Your task to perform on an android device: Search for "beats solo 3" on newegg.com, select the first entry, and add it to the cart. Image 0: 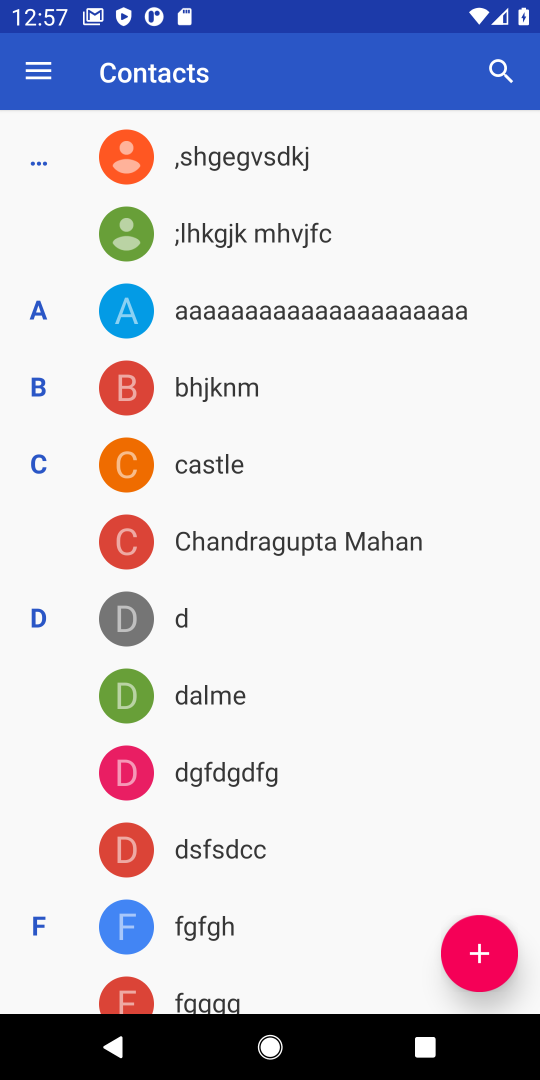
Step 0: press home button
Your task to perform on an android device: Search for "beats solo 3" on newegg.com, select the first entry, and add it to the cart. Image 1: 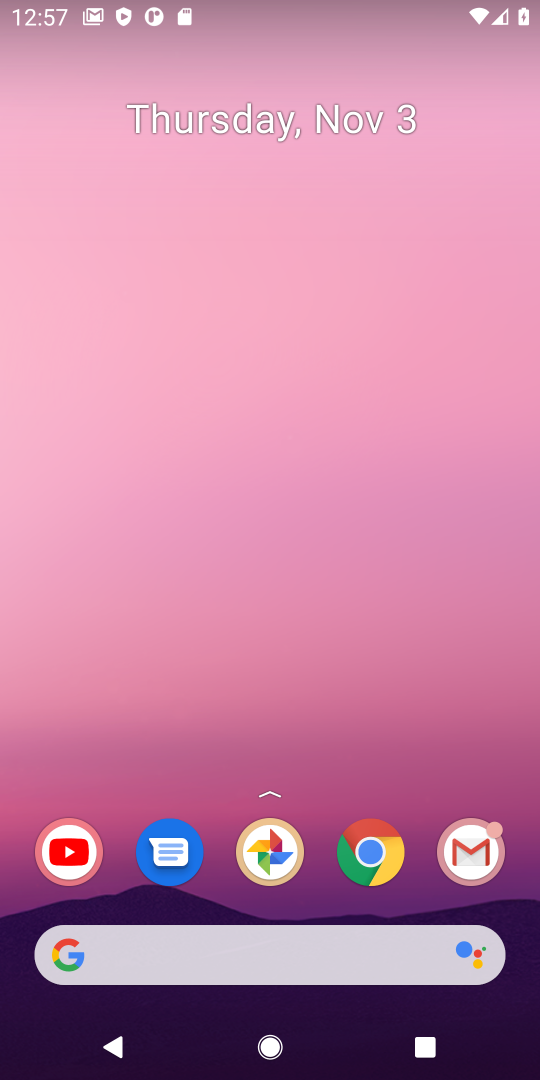
Step 1: click (370, 850)
Your task to perform on an android device: Search for "beats solo 3" on newegg.com, select the first entry, and add it to the cart. Image 2: 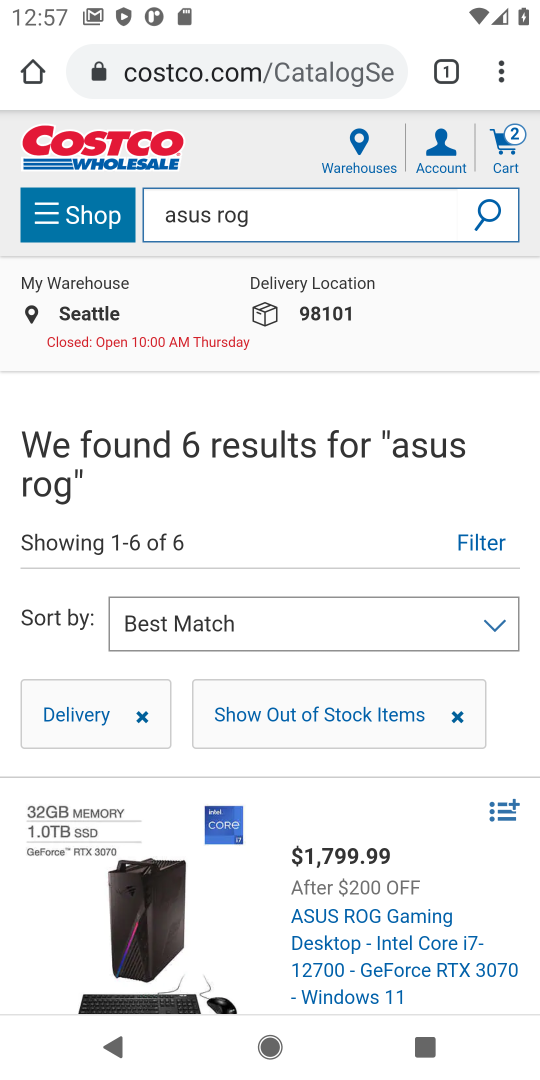
Step 2: click (202, 73)
Your task to perform on an android device: Search for "beats solo 3" on newegg.com, select the first entry, and add it to the cart. Image 3: 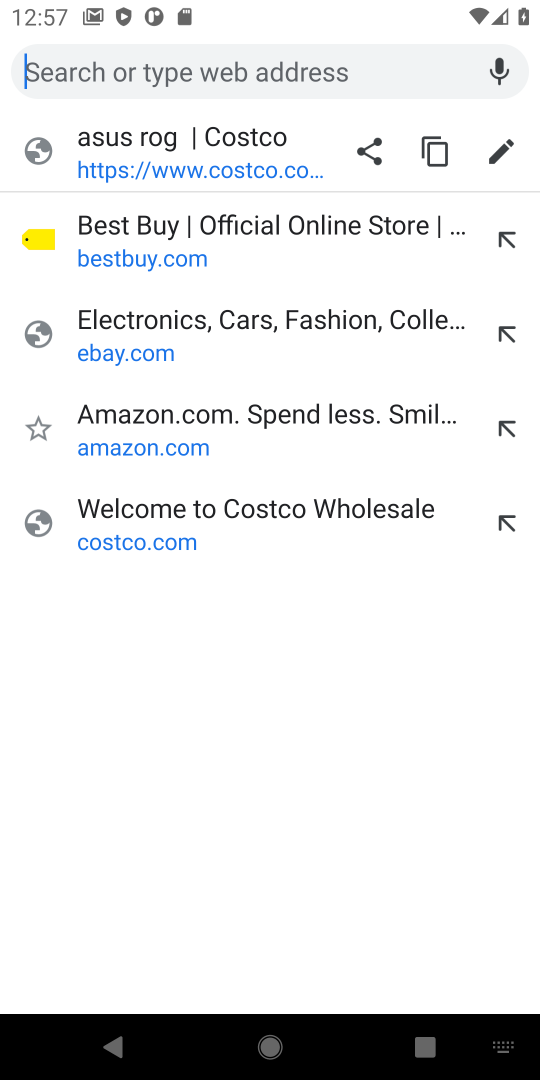
Step 3: type "newegg.com"
Your task to perform on an android device: Search for "beats solo 3" on newegg.com, select the first entry, and add it to the cart. Image 4: 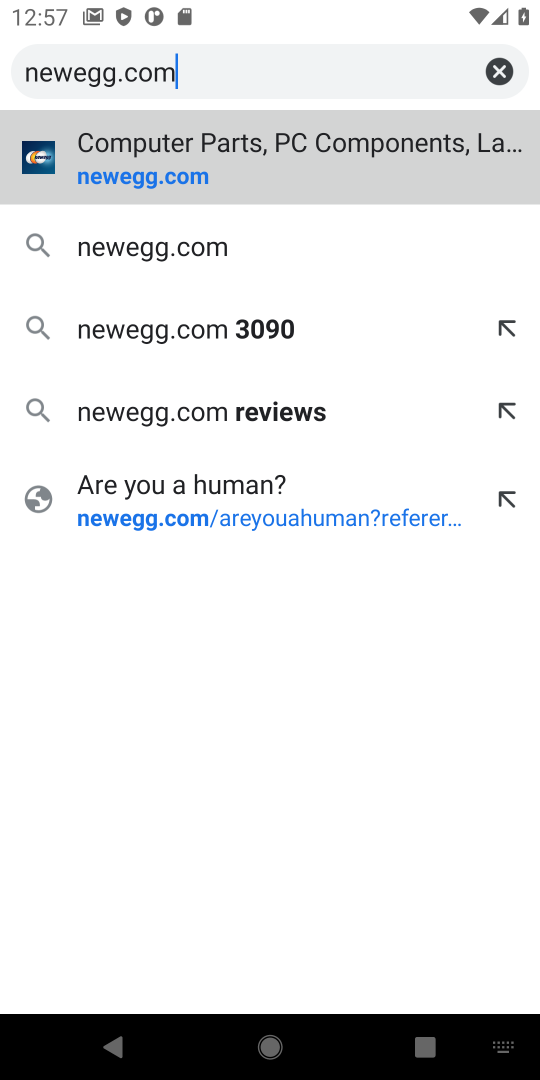
Step 4: click (135, 258)
Your task to perform on an android device: Search for "beats solo 3" on newegg.com, select the first entry, and add it to the cart. Image 5: 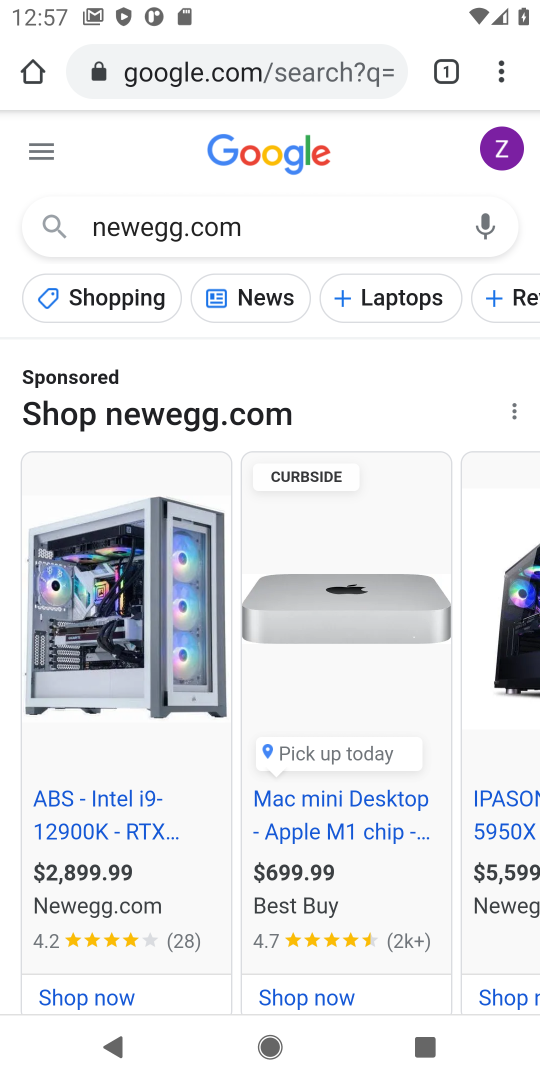
Step 5: drag from (309, 561) to (331, 103)
Your task to perform on an android device: Search for "beats solo 3" on newegg.com, select the first entry, and add it to the cart. Image 6: 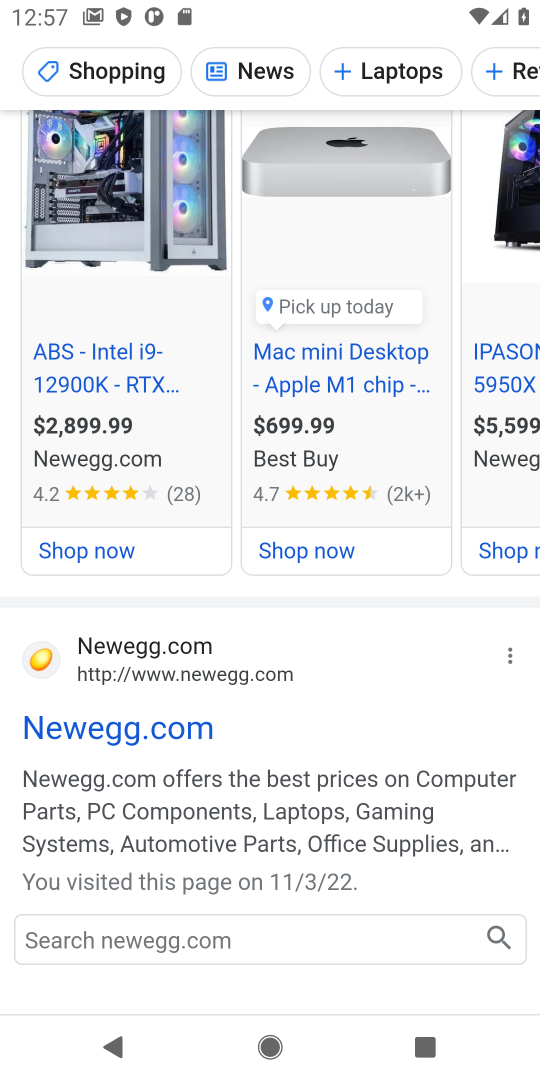
Step 6: click (121, 737)
Your task to perform on an android device: Search for "beats solo 3" on newegg.com, select the first entry, and add it to the cart. Image 7: 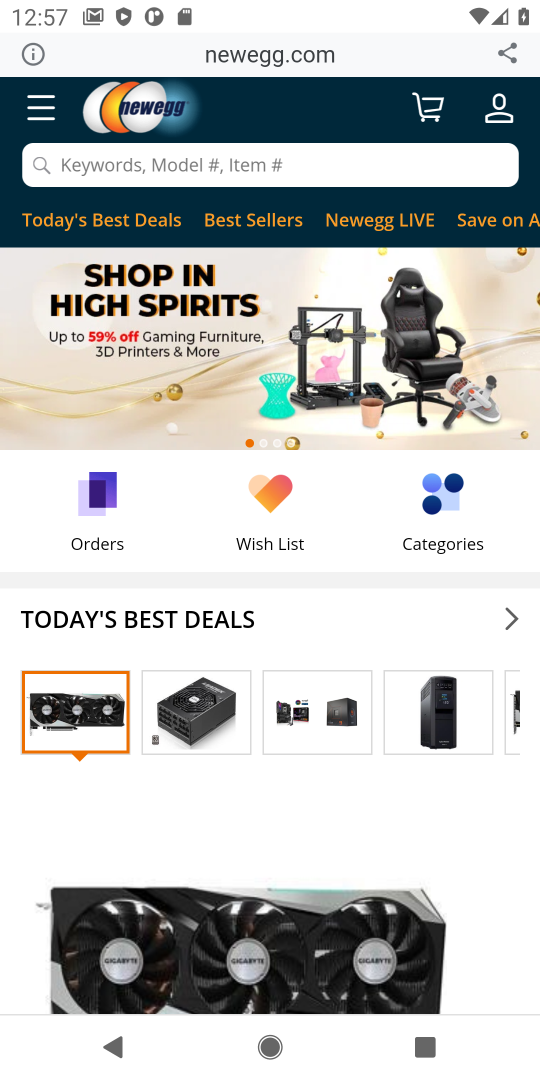
Step 7: click (162, 165)
Your task to perform on an android device: Search for "beats solo 3" on newegg.com, select the first entry, and add it to the cart. Image 8: 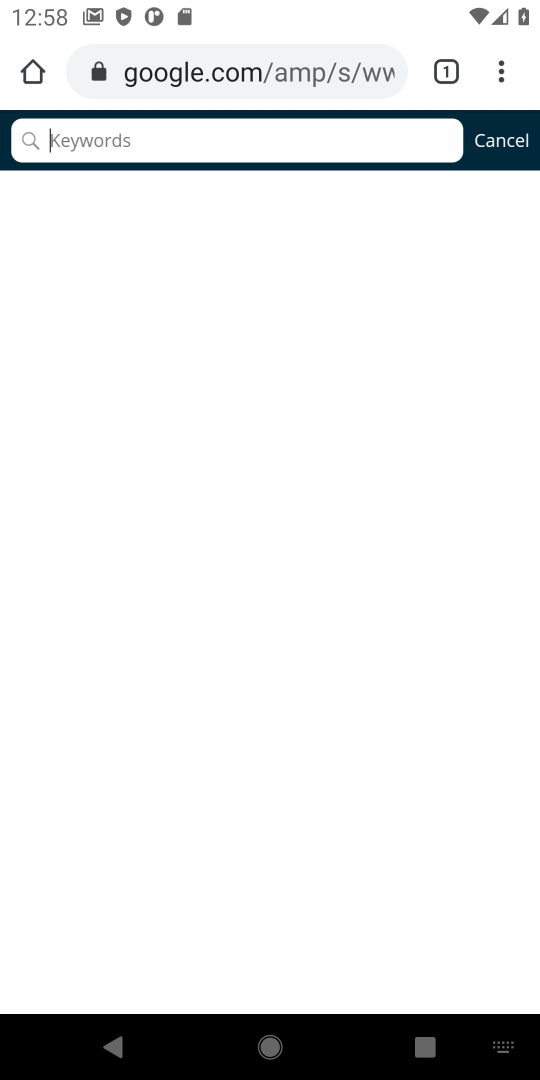
Step 8: type "beats solo 3"
Your task to perform on an android device: Search for "beats solo 3" on newegg.com, select the first entry, and add it to the cart. Image 9: 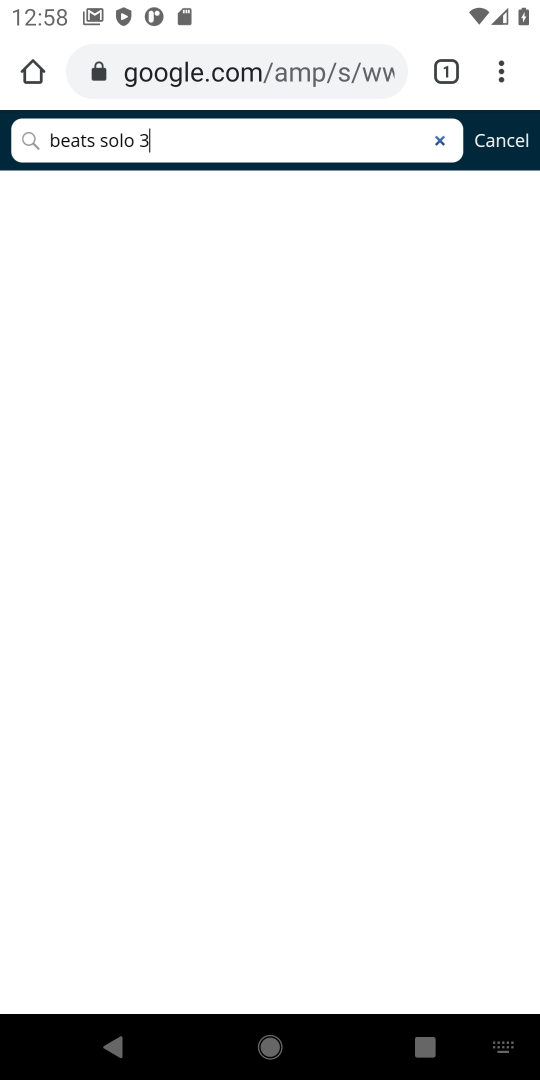
Step 9: click (32, 146)
Your task to perform on an android device: Search for "beats solo 3" on newegg.com, select the first entry, and add it to the cart. Image 10: 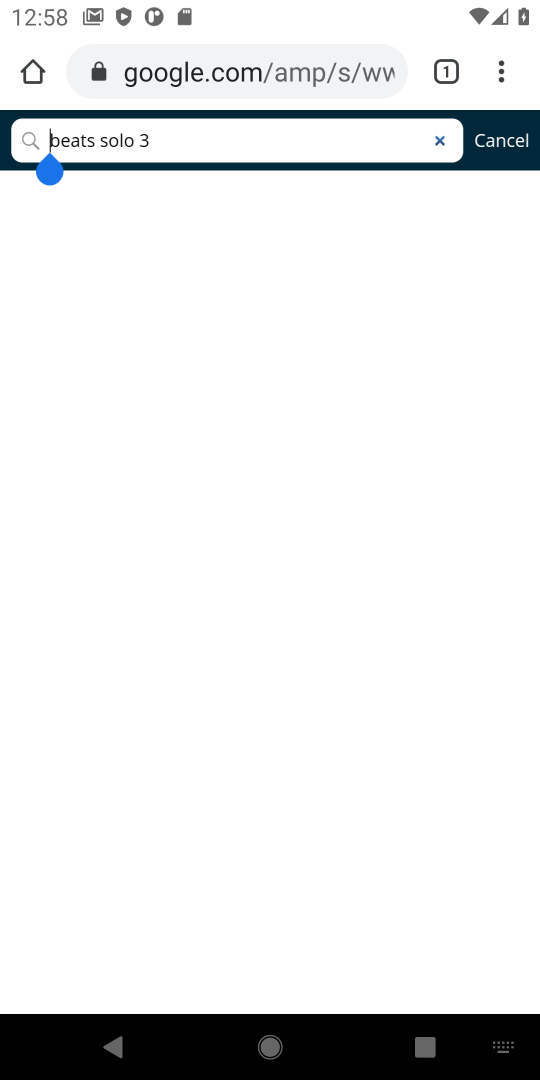
Step 10: task complete